Your task to perform on an android device: turn on data saver in the chrome app Image 0: 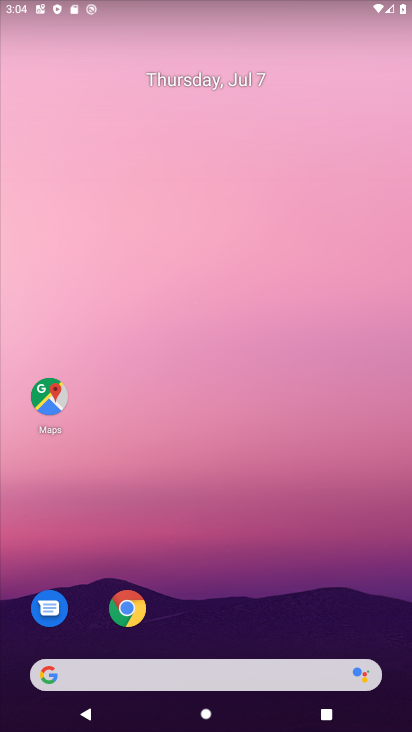
Step 0: click (124, 602)
Your task to perform on an android device: turn on data saver in the chrome app Image 1: 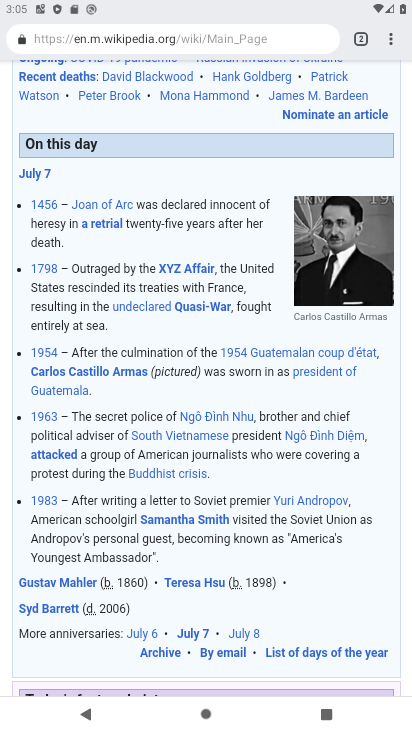
Step 1: click (391, 41)
Your task to perform on an android device: turn on data saver in the chrome app Image 2: 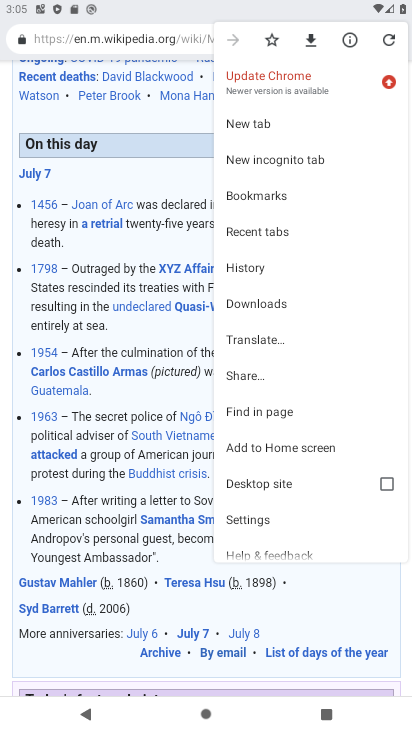
Step 2: click (278, 517)
Your task to perform on an android device: turn on data saver in the chrome app Image 3: 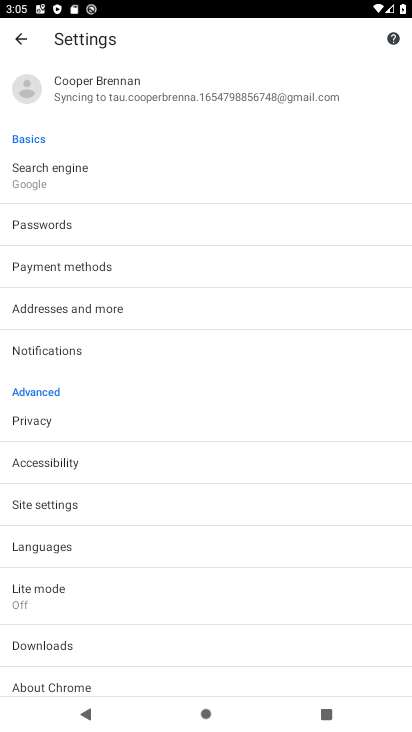
Step 3: click (81, 599)
Your task to perform on an android device: turn on data saver in the chrome app Image 4: 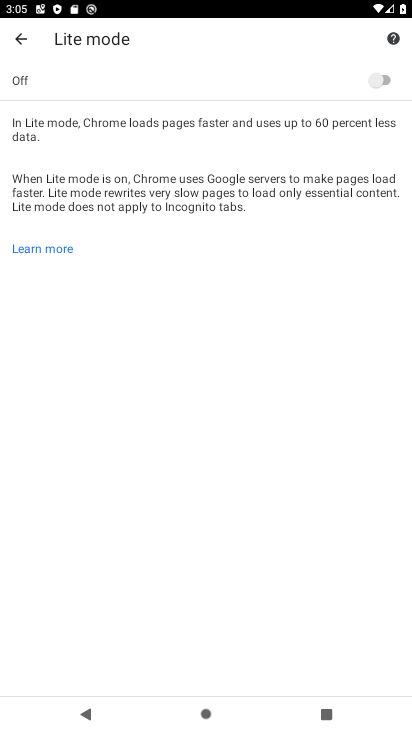
Step 4: click (369, 75)
Your task to perform on an android device: turn on data saver in the chrome app Image 5: 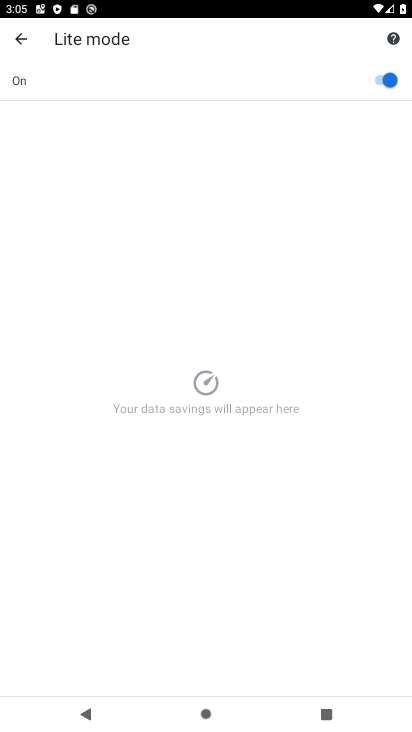
Step 5: task complete